Your task to perform on an android device: turn on data saver in the chrome app Image 0: 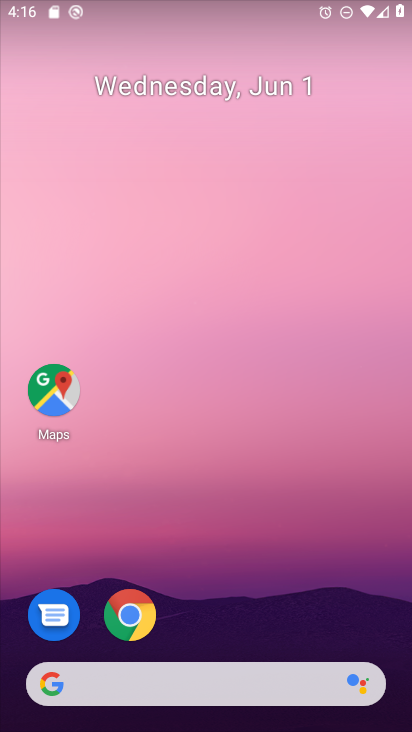
Step 0: press home button
Your task to perform on an android device: turn on data saver in the chrome app Image 1: 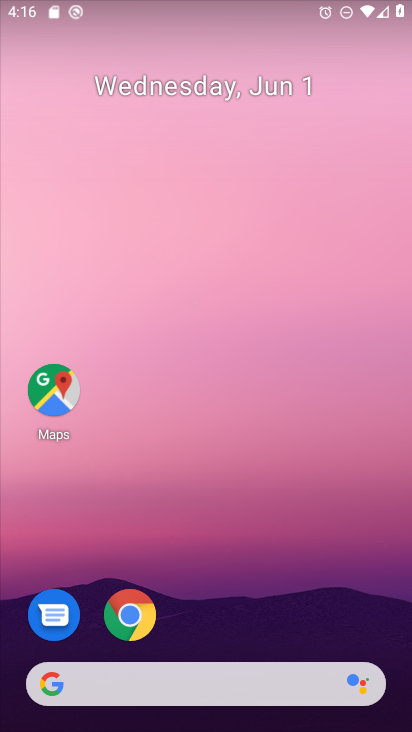
Step 1: click (128, 608)
Your task to perform on an android device: turn on data saver in the chrome app Image 2: 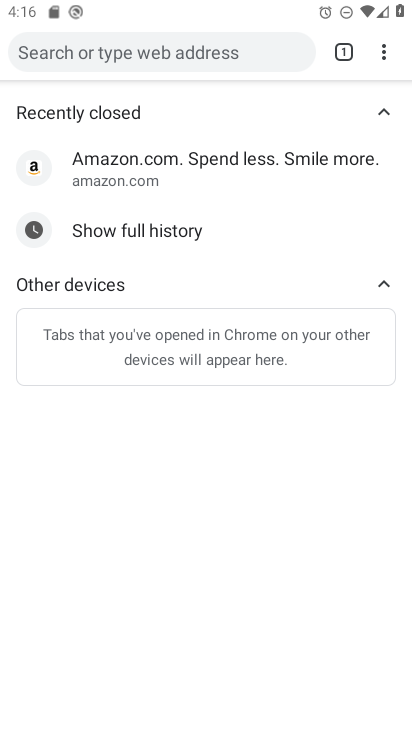
Step 2: click (380, 49)
Your task to perform on an android device: turn on data saver in the chrome app Image 3: 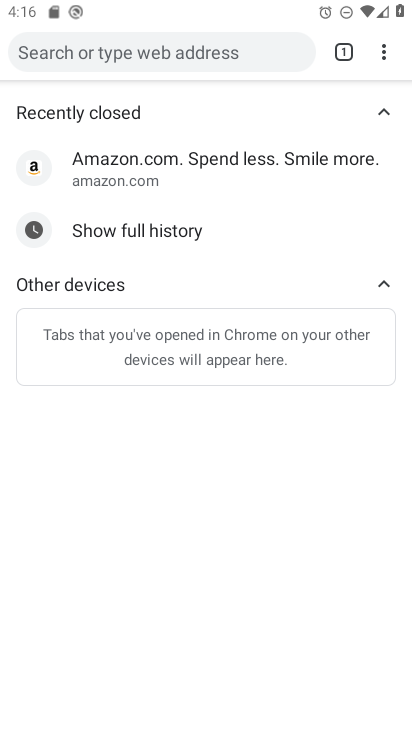
Step 3: click (383, 52)
Your task to perform on an android device: turn on data saver in the chrome app Image 4: 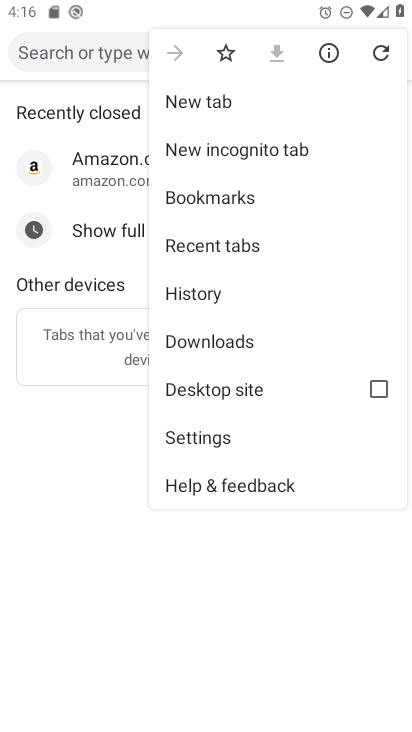
Step 4: click (244, 437)
Your task to perform on an android device: turn on data saver in the chrome app Image 5: 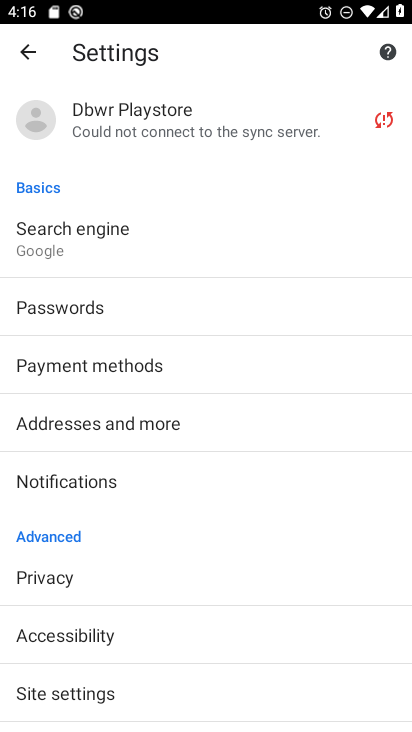
Step 5: drag from (179, 674) to (178, 225)
Your task to perform on an android device: turn on data saver in the chrome app Image 6: 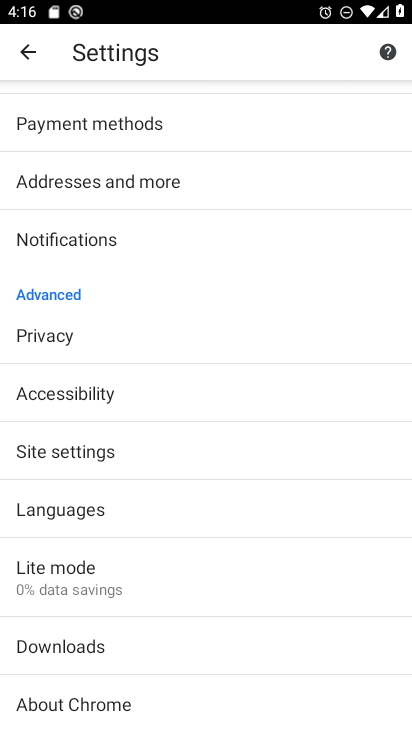
Step 6: click (131, 574)
Your task to perform on an android device: turn on data saver in the chrome app Image 7: 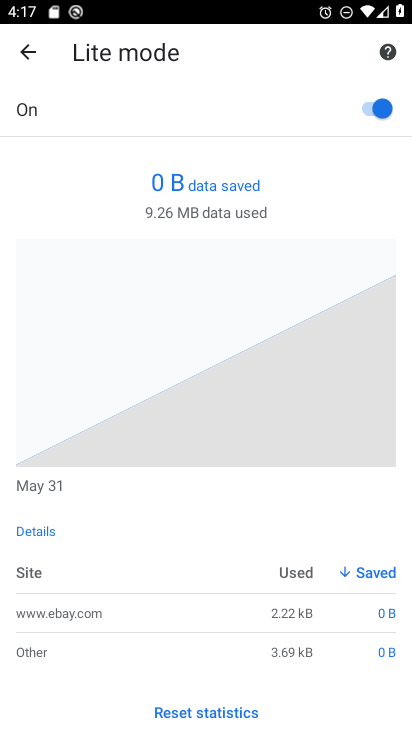
Step 7: task complete